Your task to perform on an android device: see sites visited before in the chrome app Image 0: 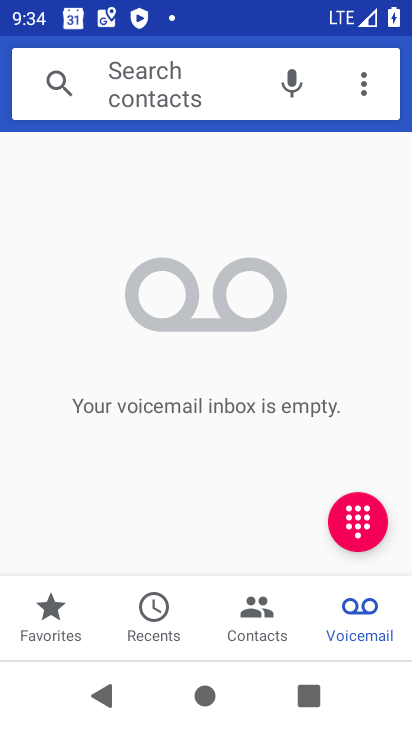
Step 0: press home button
Your task to perform on an android device: see sites visited before in the chrome app Image 1: 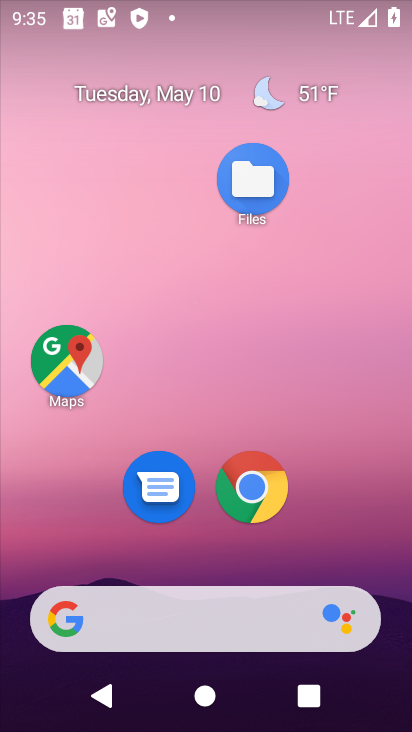
Step 1: click (251, 484)
Your task to perform on an android device: see sites visited before in the chrome app Image 2: 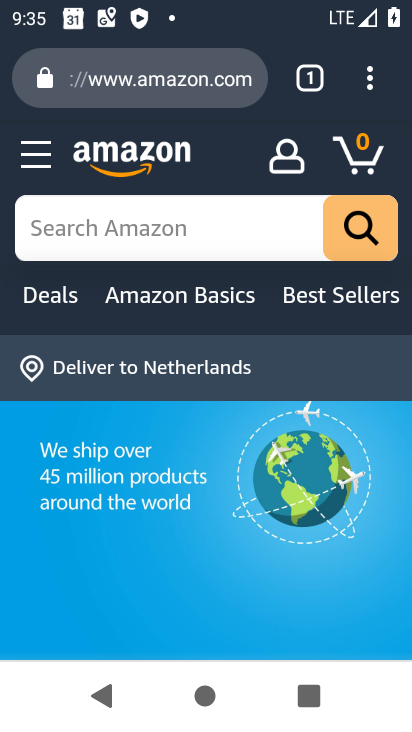
Step 2: click (364, 84)
Your task to perform on an android device: see sites visited before in the chrome app Image 3: 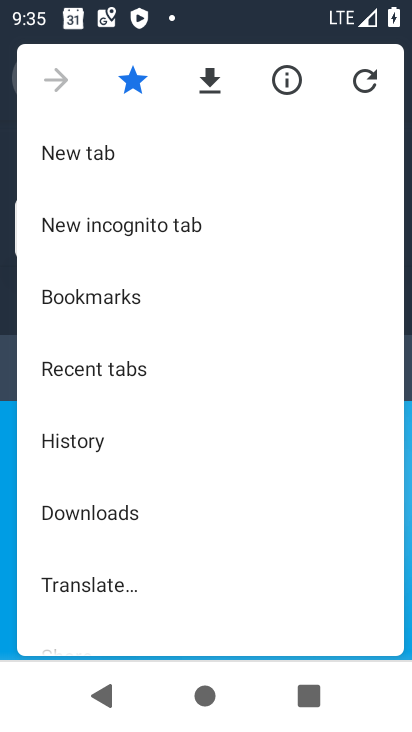
Step 3: click (131, 457)
Your task to perform on an android device: see sites visited before in the chrome app Image 4: 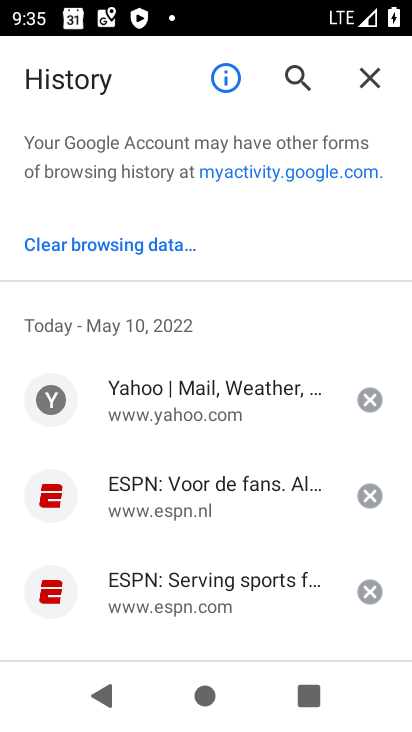
Step 4: task complete